Your task to perform on an android device: see tabs open on other devices in the chrome app Image 0: 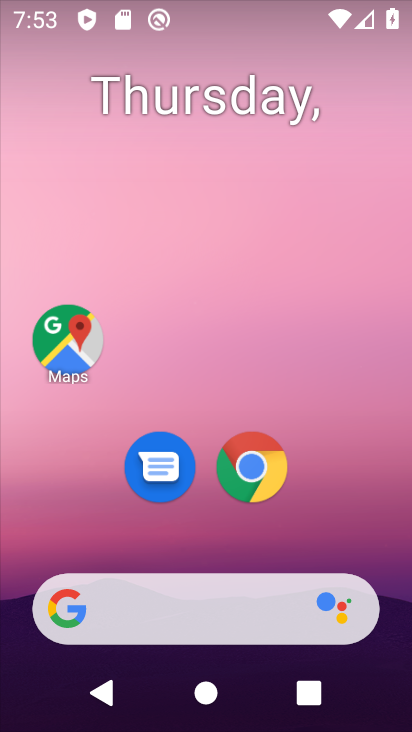
Step 0: click (254, 450)
Your task to perform on an android device: see tabs open on other devices in the chrome app Image 1: 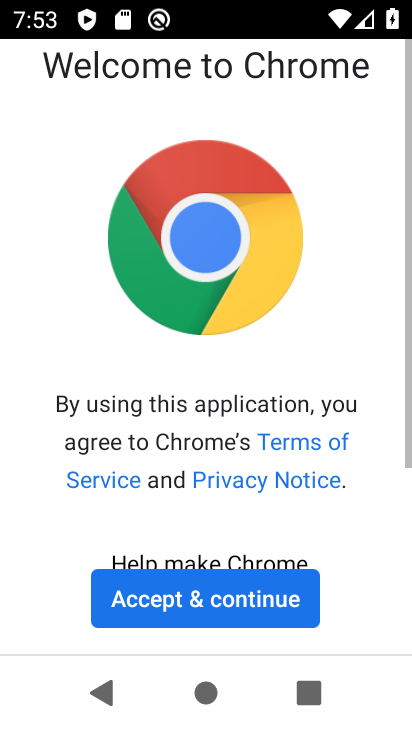
Step 1: click (164, 584)
Your task to perform on an android device: see tabs open on other devices in the chrome app Image 2: 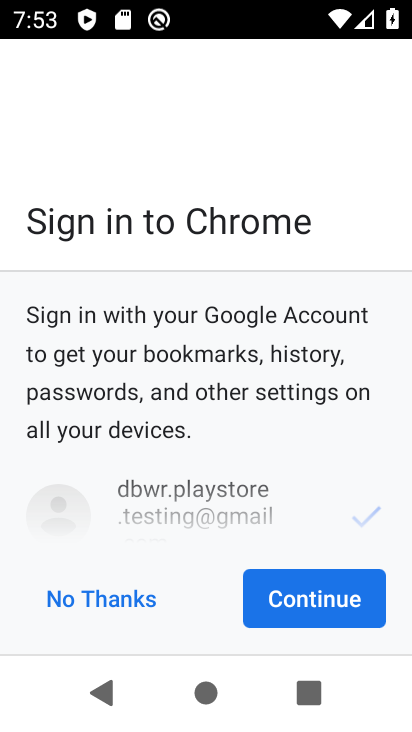
Step 2: click (324, 592)
Your task to perform on an android device: see tabs open on other devices in the chrome app Image 3: 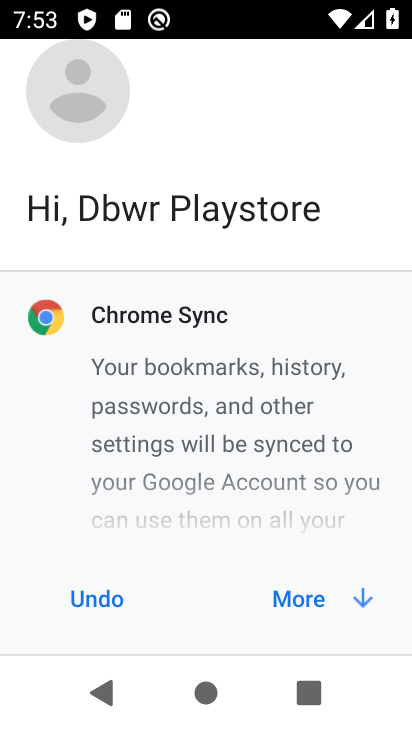
Step 3: click (309, 613)
Your task to perform on an android device: see tabs open on other devices in the chrome app Image 4: 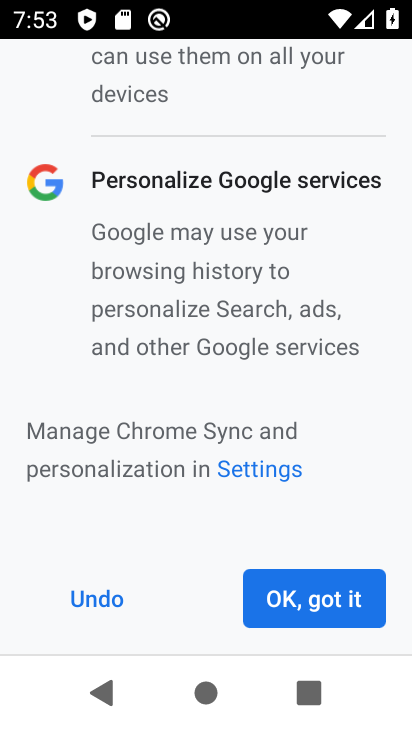
Step 4: click (307, 610)
Your task to perform on an android device: see tabs open on other devices in the chrome app Image 5: 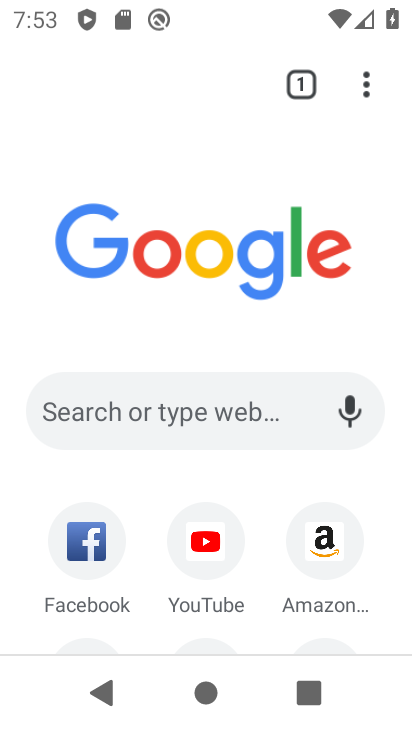
Step 5: task complete